Your task to perform on an android device: check google app version Image 0: 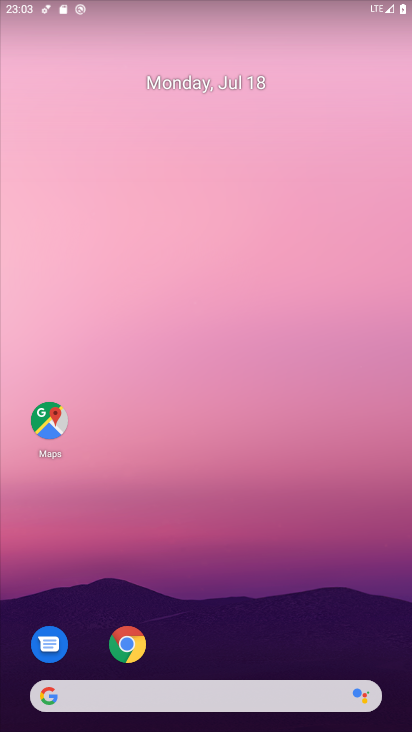
Step 0: drag from (329, 608) to (366, 129)
Your task to perform on an android device: check google app version Image 1: 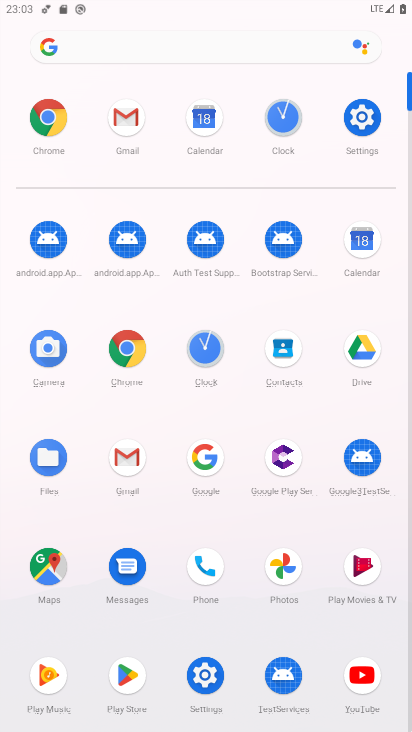
Step 1: click (212, 461)
Your task to perform on an android device: check google app version Image 2: 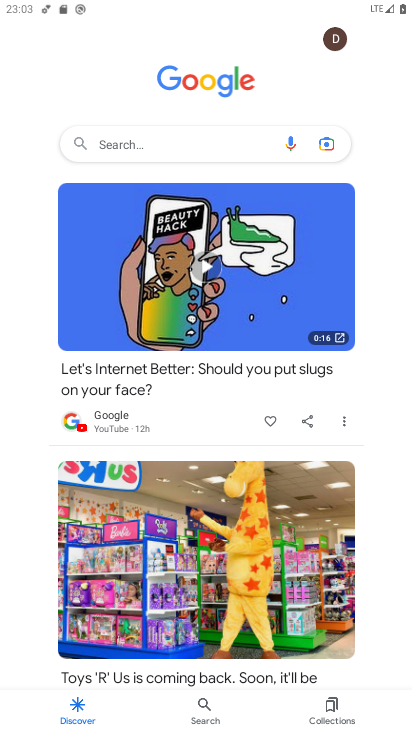
Step 2: drag from (383, 560) to (396, 432)
Your task to perform on an android device: check google app version Image 3: 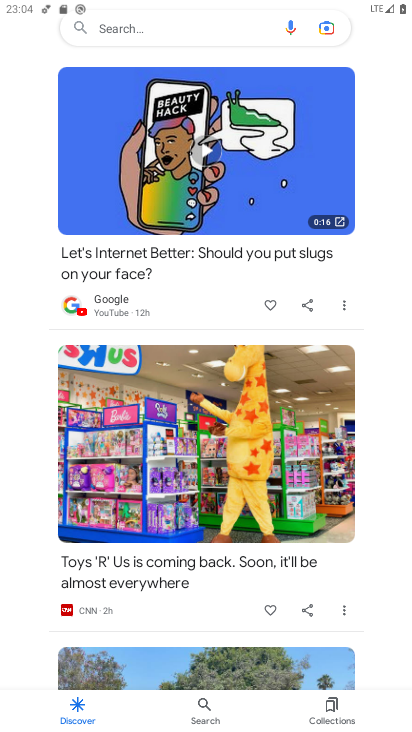
Step 3: drag from (390, 136) to (389, 289)
Your task to perform on an android device: check google app version Image 4: 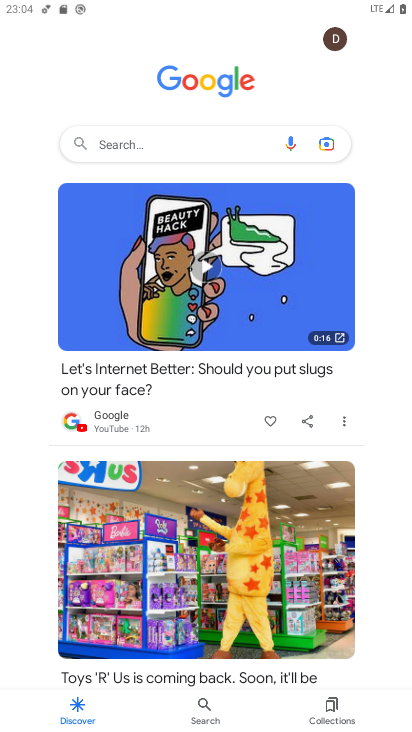
Step 4: click (333, 42)
Your task to perform on an android device: check google app version Image 5: 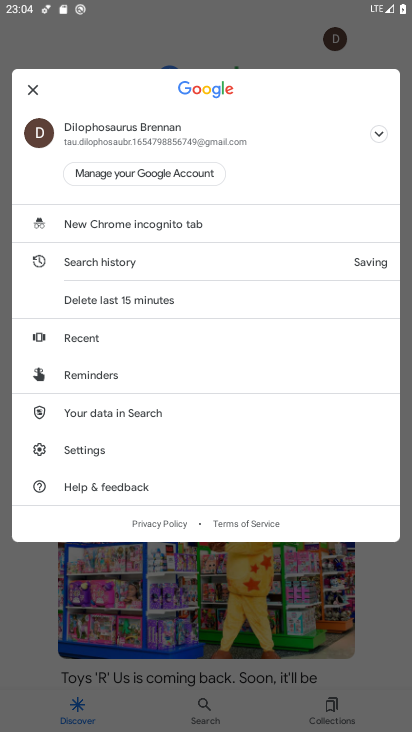
Step 5: click (115, 449)
Your task to perform on an android device: check google app version Image 6: 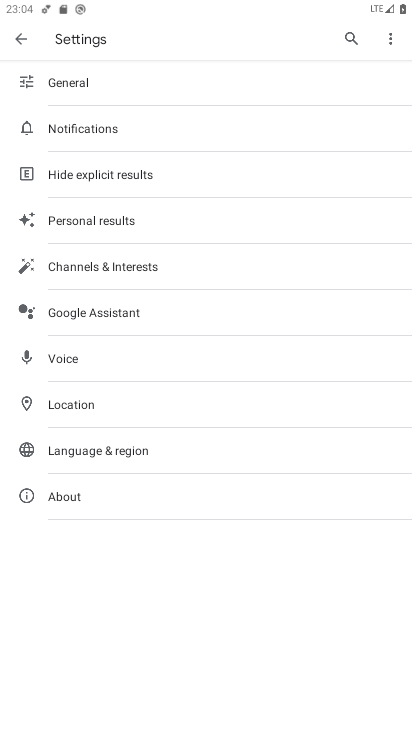
Step 6: click (122, 490)
Your task to perform on an android device: check google app version Image 7: 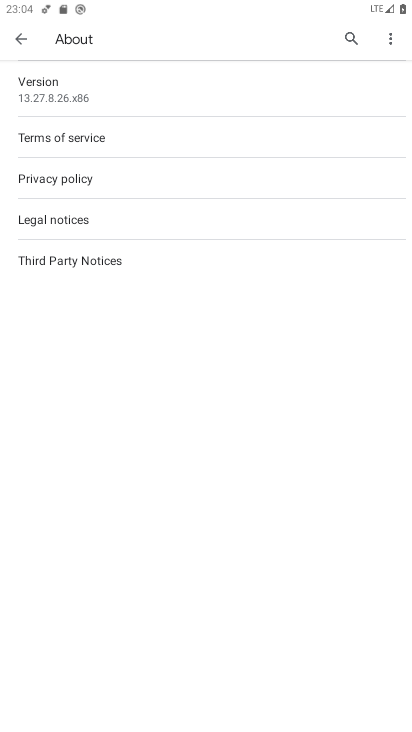
Step 7: task complete